Your task to perform on an android device: What is the recent news? Image 0: 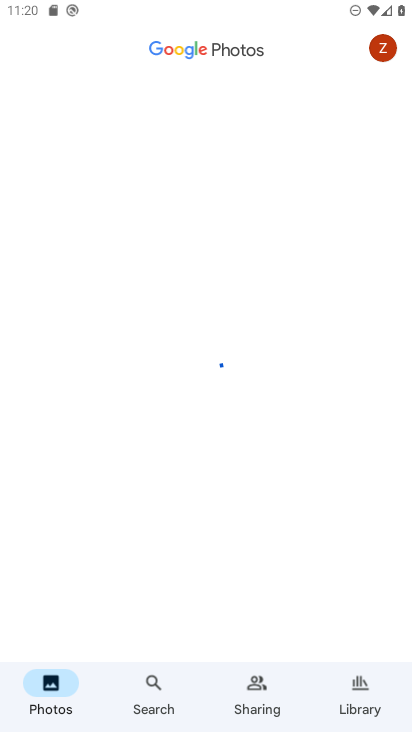
Step 0: press home button
Your task to perform on an android device: What is the recent news? Image 1: 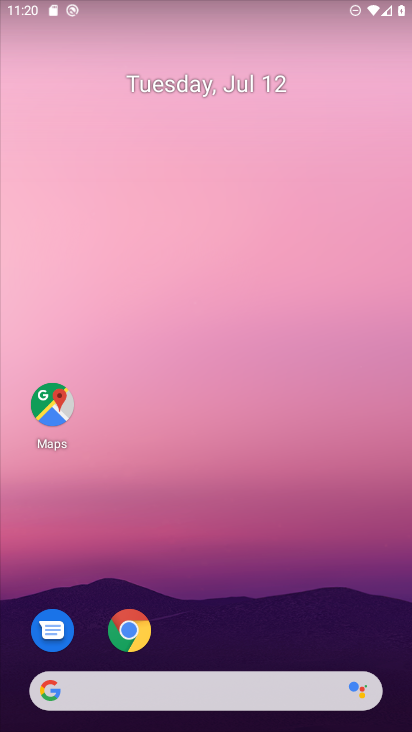
Step 1: drag from (309, 555) to (258, 168)
Your task to perform on an android device: What is the recent news? Image 2: 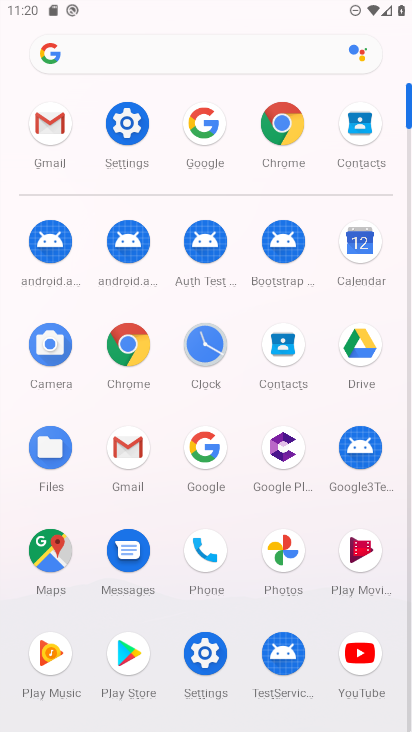
Step 2: click (283, 127)
Your task to perform on an android device: What is the recent news? Image 3: 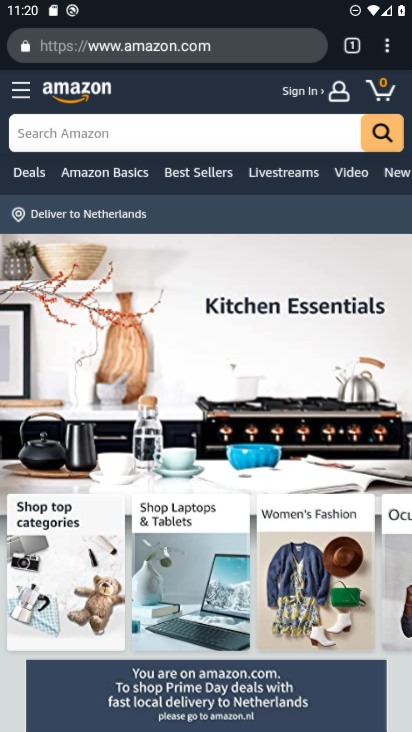
Step 3: click (195, 44)
Your task to perform on an android device: What is the recent news? Image 4: 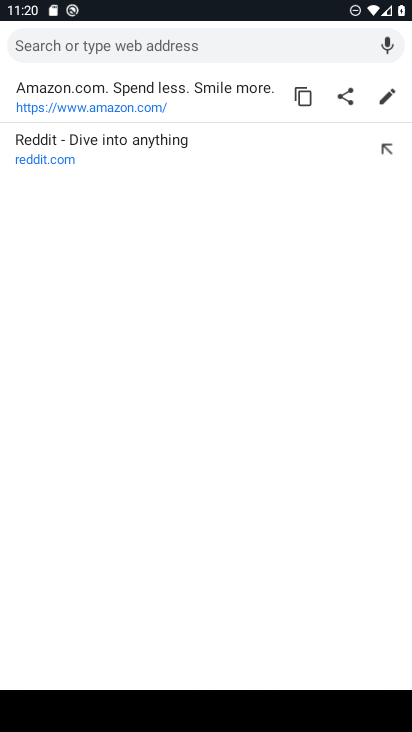
Step 4: type "news"
Your task to perform on an android device: What is the recent news? Image 5: 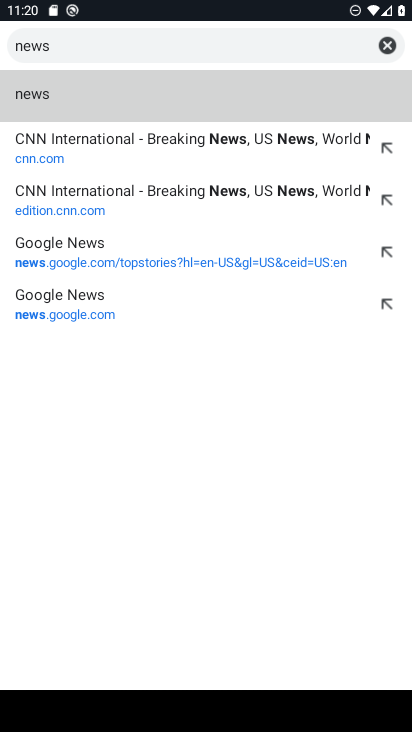
Step 5: click (51, 102)
Your task to perform on an android device: What is the recent news? Image 6: 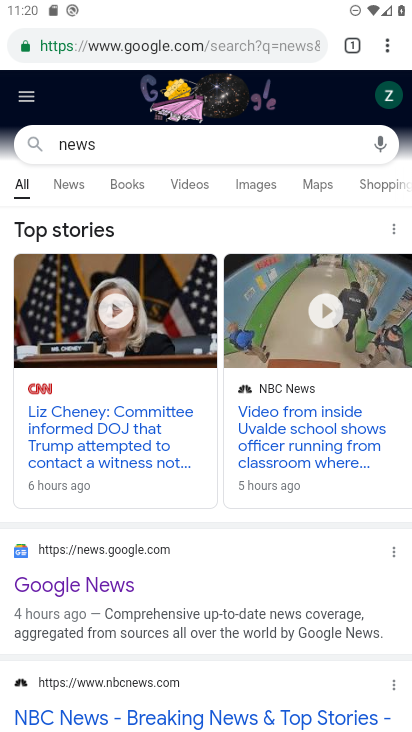
Step 6: click (83, 577)
Your task to perform on an android device: What is the recent news? Image 7: 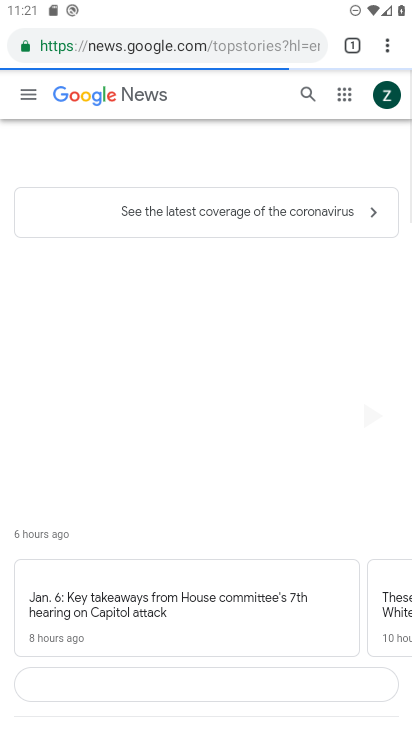
Step 7: click (96, 582)
Your task to perform on an android device: What is the recent news? Image 8: 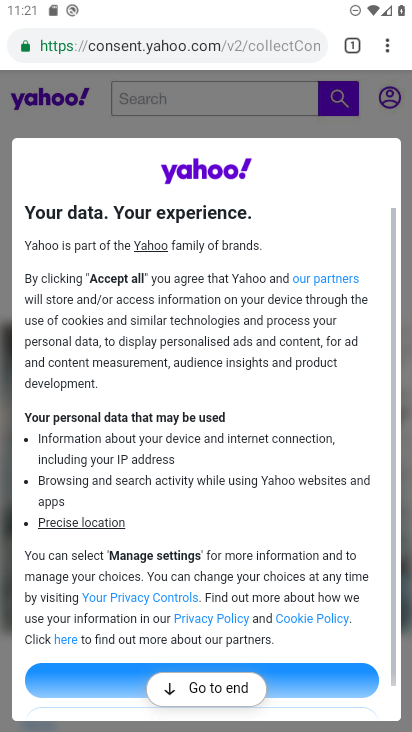
Step 8: click (230, 39)
Your task to perform on an android device: What is the recent news? Image 9: 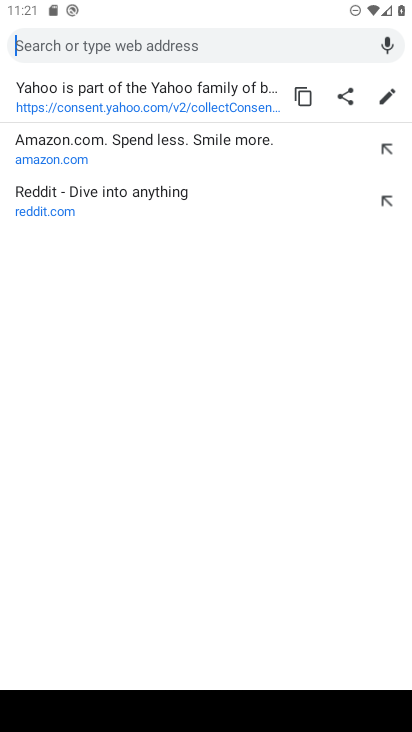
Step 9: type "news"
Your task to perform on an android device: What is the recent news? Image 10: 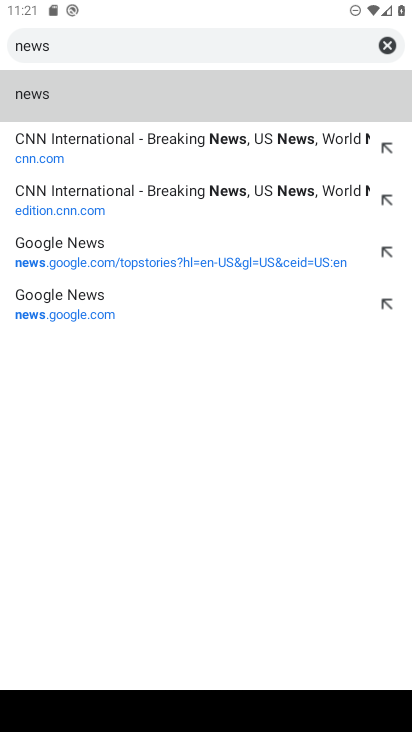
Step 10: click (55, 95)
Your task to perform on an android device: What is the recent news? Image 11: 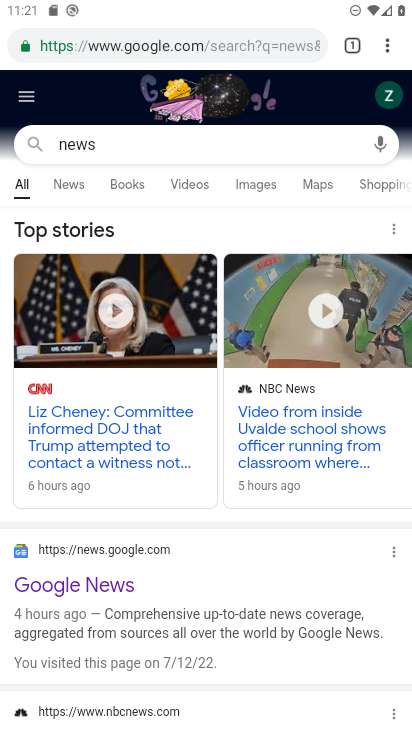
Step 11: click (99, 583)
Your task to perform on an android device: What is the recent news? Image 12: 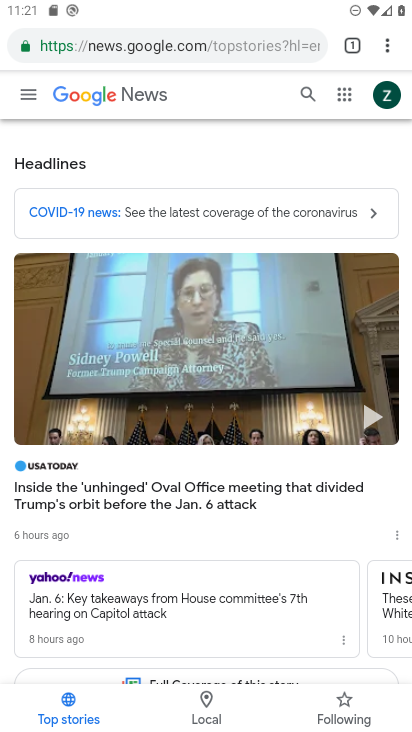
Step 12: task complete